Your task to perform on an android device: Open the Play Movies app and select the watchlist tab. Image 0: 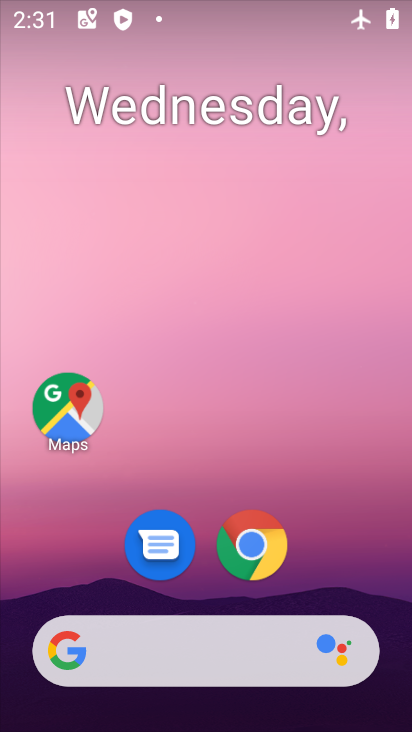
Step 0: drag from (343, 504) to (343, 91)
Your task to perform on an android device: Open the Play Movies app and select the watchlist tab. Image 1: 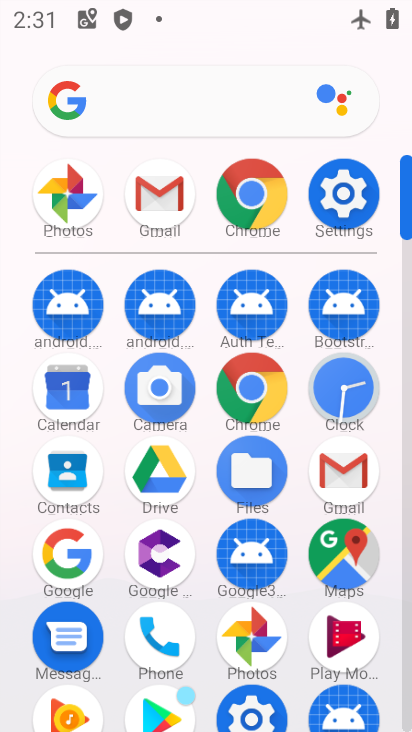
Step 1: click (358, 626)
Your task to perform on an android device: Open the Play Movies app and select the watchlist tab. Image 2: 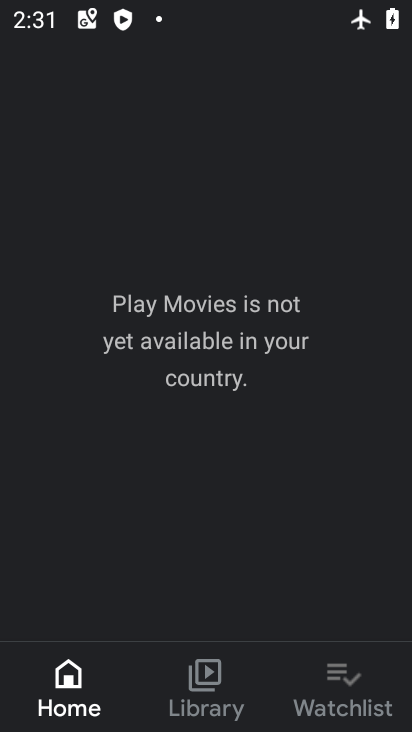
Step 2: click (324, 693)
Your task to perform on an android device: Open the Play Movies app and select the watchlist tab. Image 3: 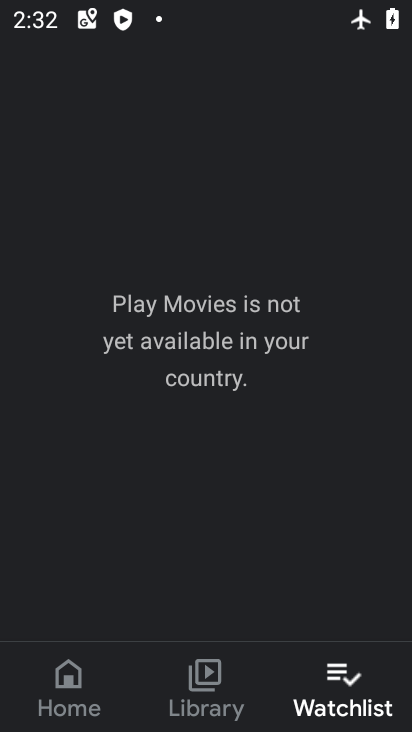
Step 3: task complete